Your task to perform on an android device: What's the news this morning? Image 0: 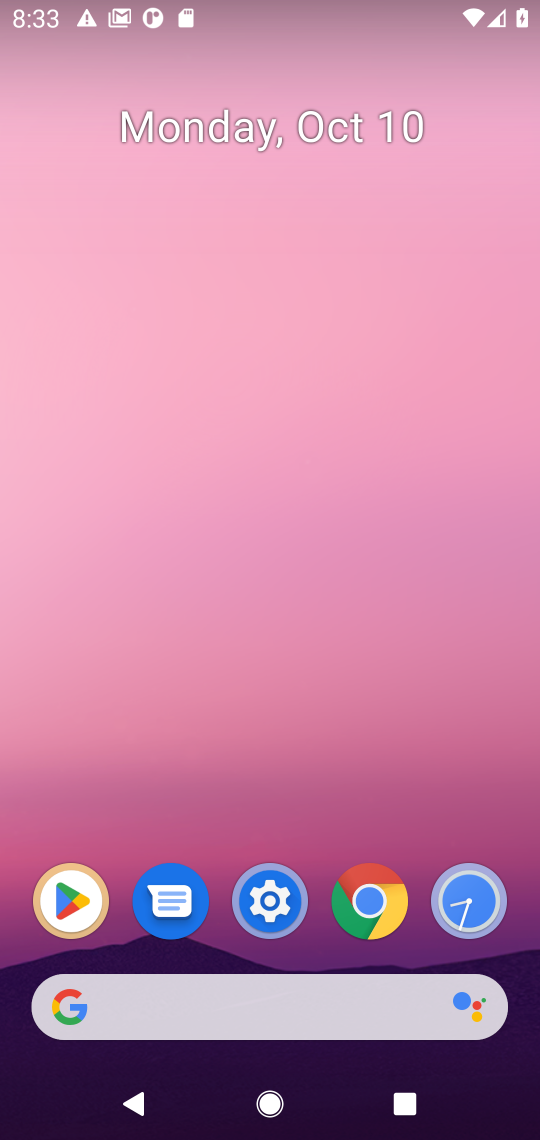
Step 0: click (227, 994)
Your task to perform on an android device: What's the news this morning? Image 1: 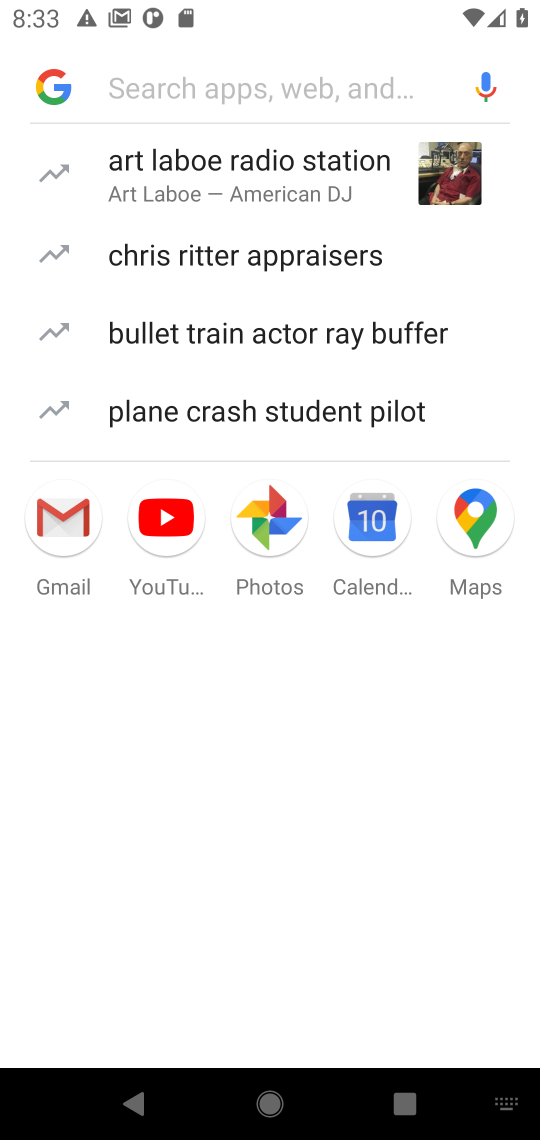
Step 1: type "What's the news this morning"
Your task to perform on an android device: What's the news this morning? Image 2: 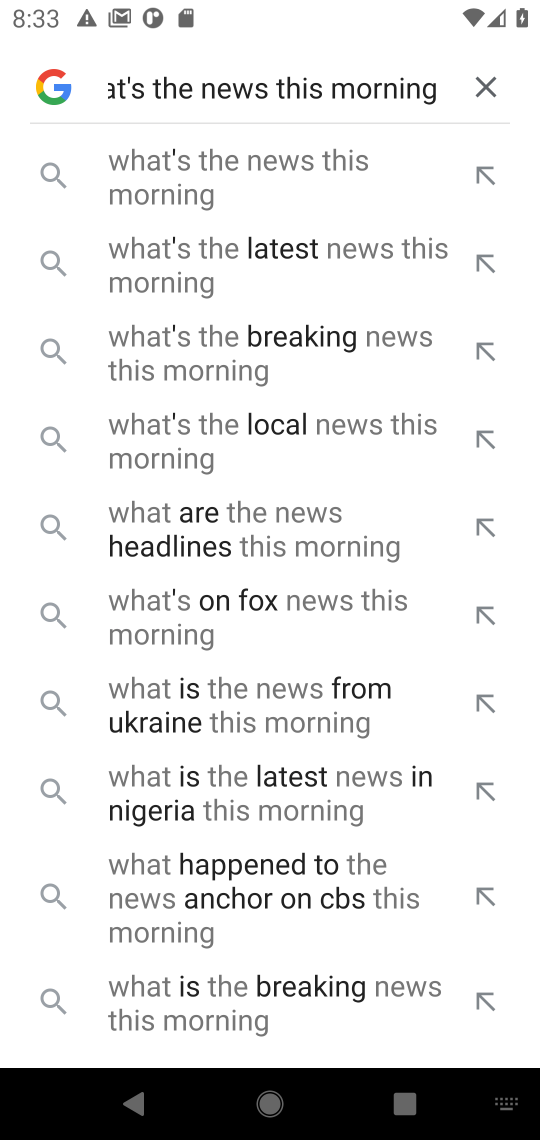
Step 2: press enter
Your task to perform on an android device: What's the news this morning? Image 3: 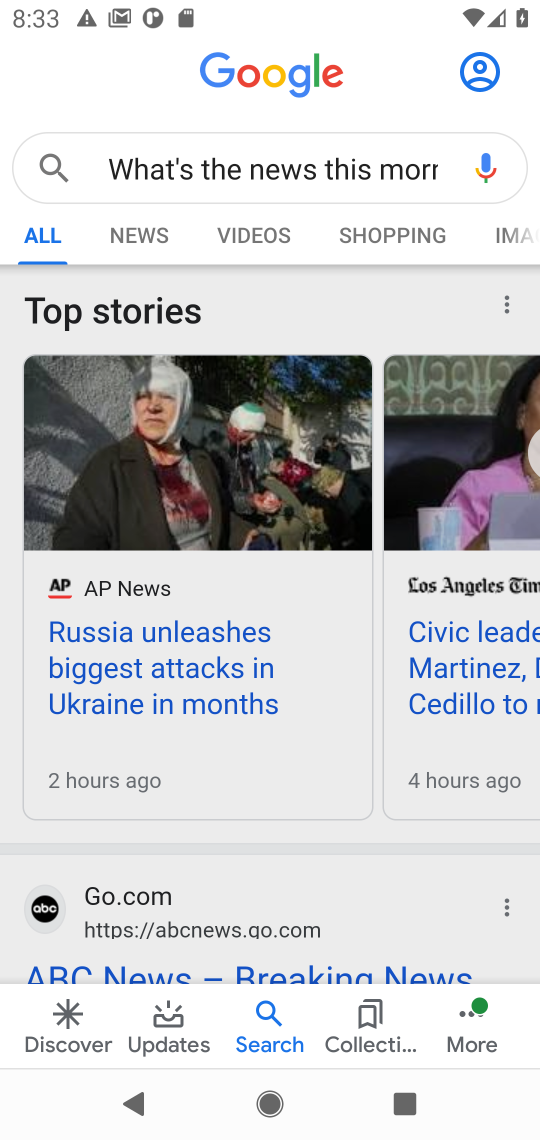
Step 3: drag from (364, 856) to (352, 591)
Your task to perform on an android device: What's the news this morning? Image 4: 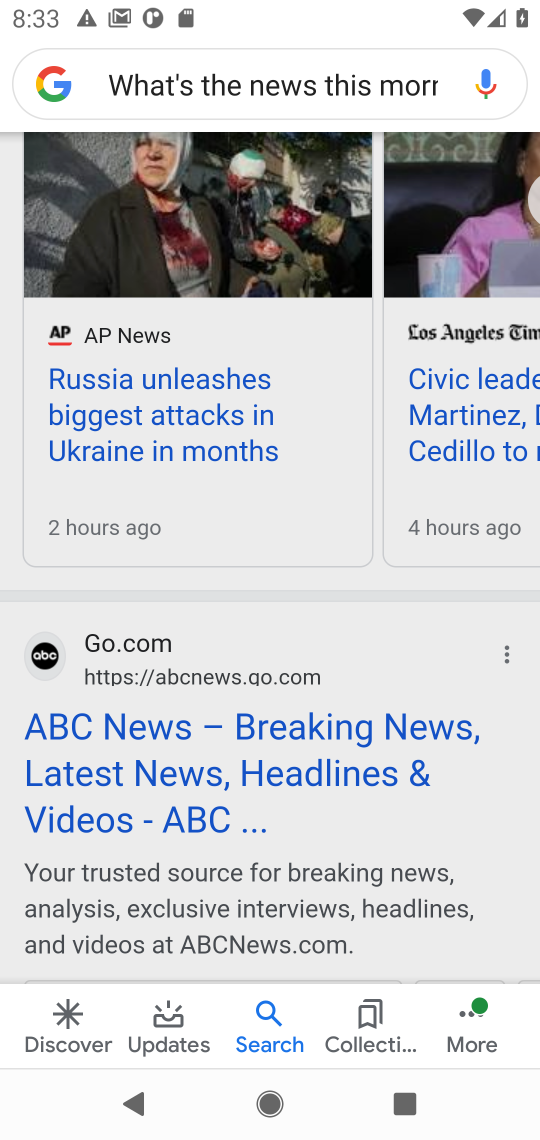
Step 4: click (338, 759)
Your task to perform on an android device: What's the news this morning? Image 5: 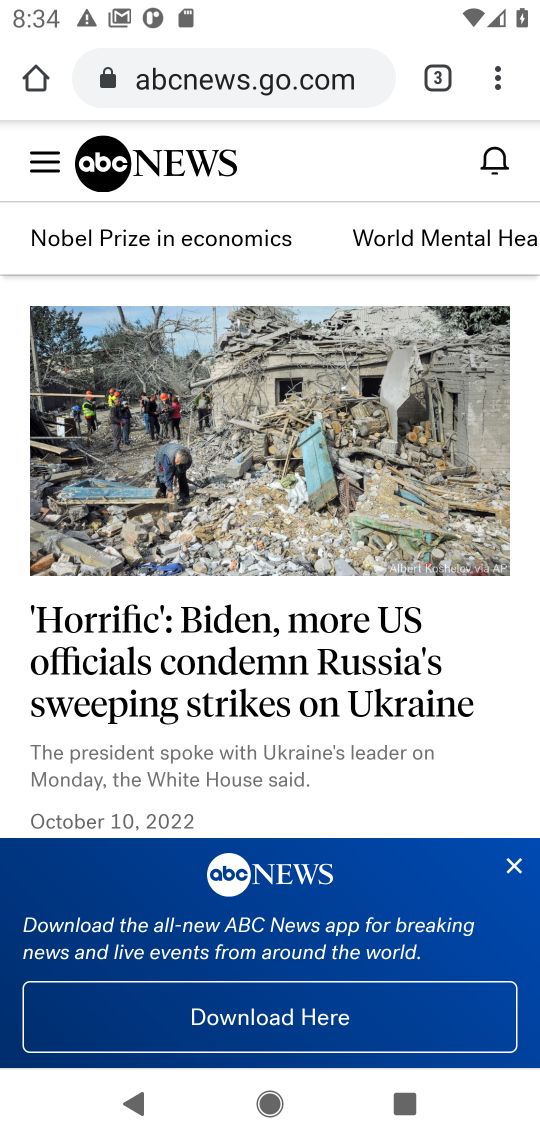
Step 5: click (516, 867)
Your task to perform on an android device: What's the news this morning? Image 6: 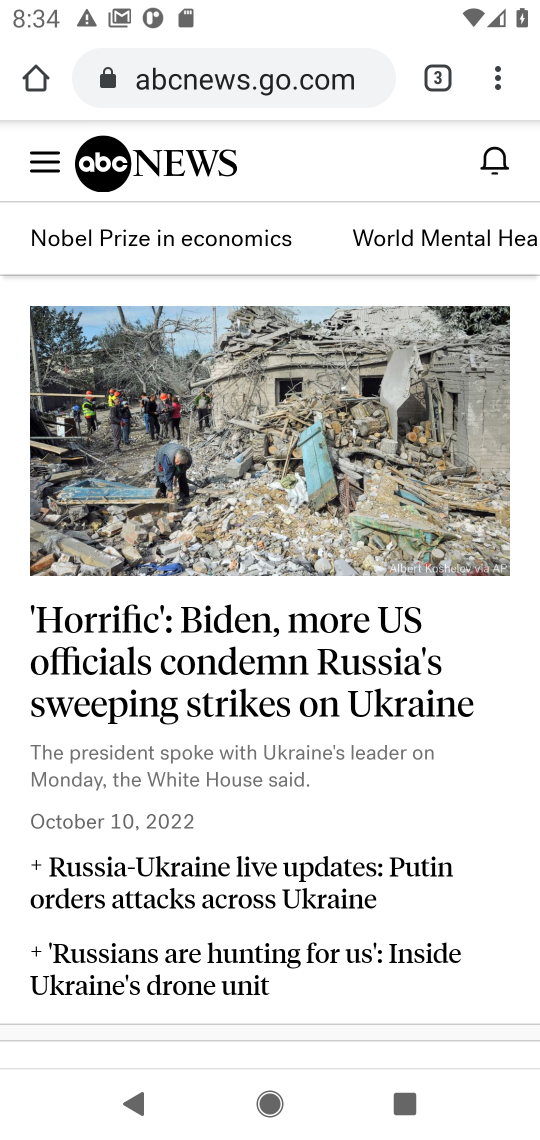
Step 6: task complete